Your task to perform on an android device: change your default location settings in chrome Image 0: 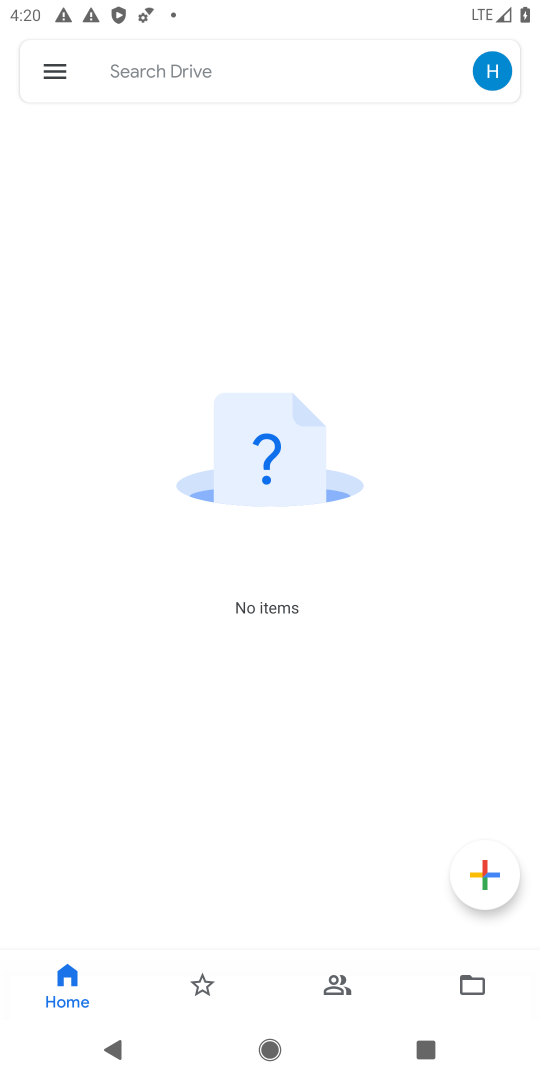
Step 0: click (270, 1036)
Your task to perform on an android device: change your default location settings in chrome Image 1: 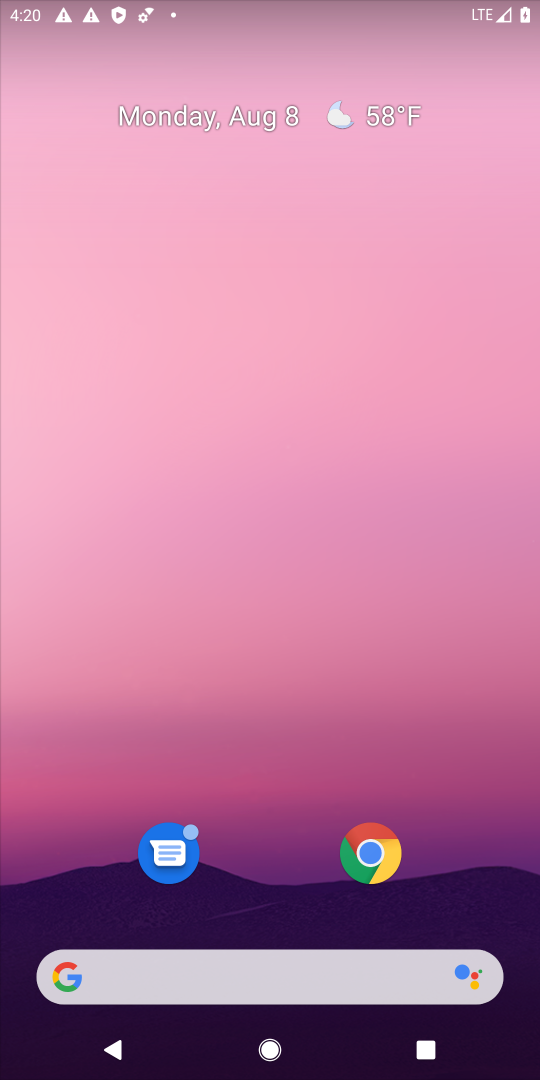
Step 1: drag from (207, 717) to (280, 2)
Your task to perform on an android device: change your default location settings in chrome Image 2: 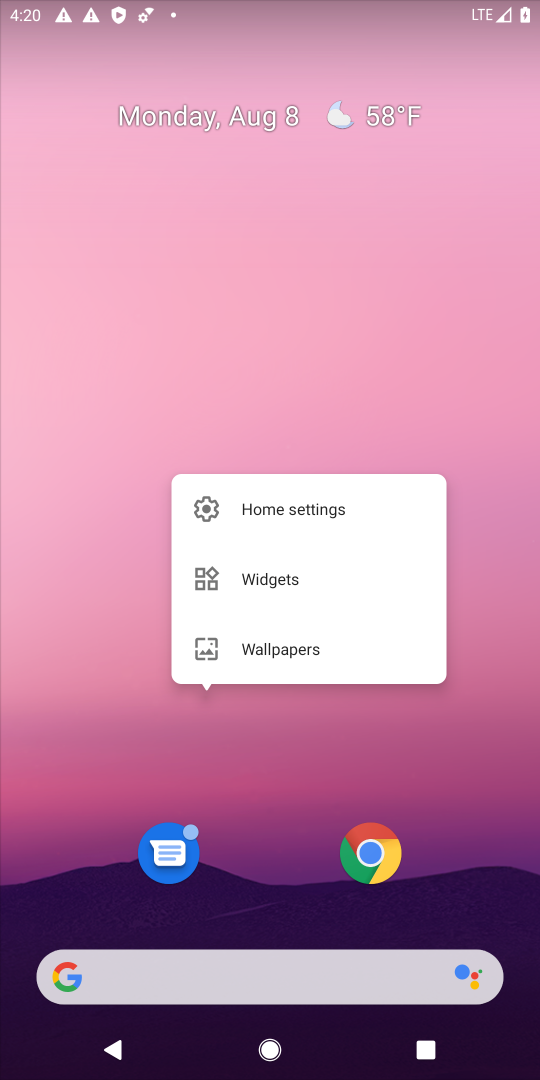
Step 2: click (262, 816)
Your task to perform on an android device: change your default location settings in chrome Image 3: 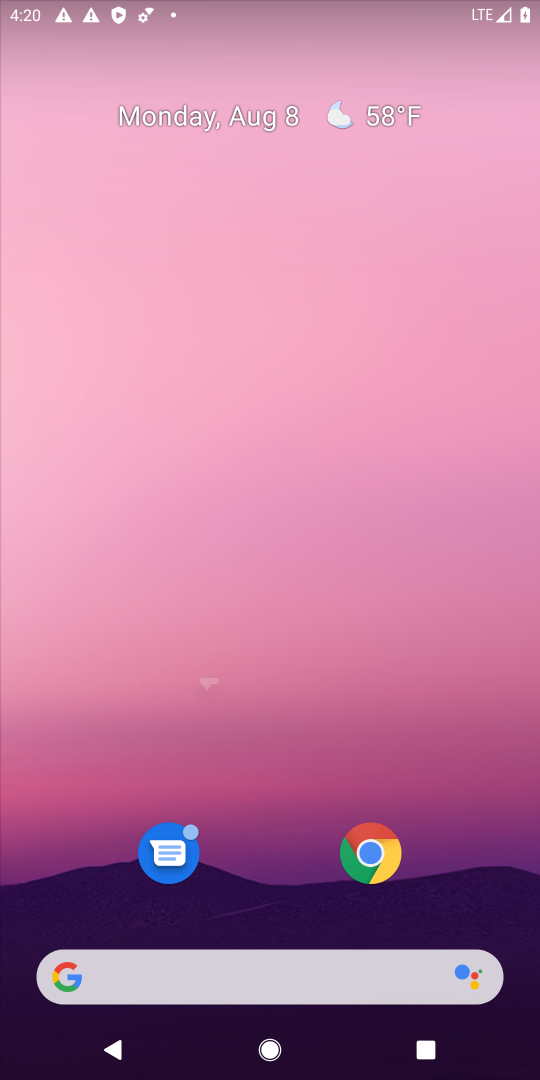
Step 3: drag from (262, 816) to (530, 56)
Your task to perform on an android device: change your default location settings in chrome Image 4: 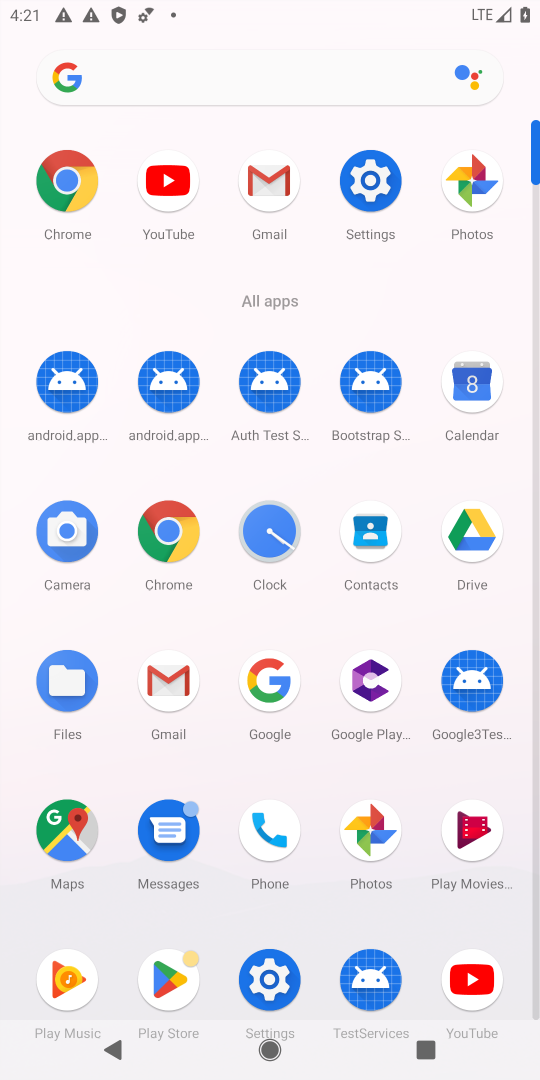
Step 4: click (177, 531)
Your task to perform on an android device: change your default location settings in chrome Image 5: 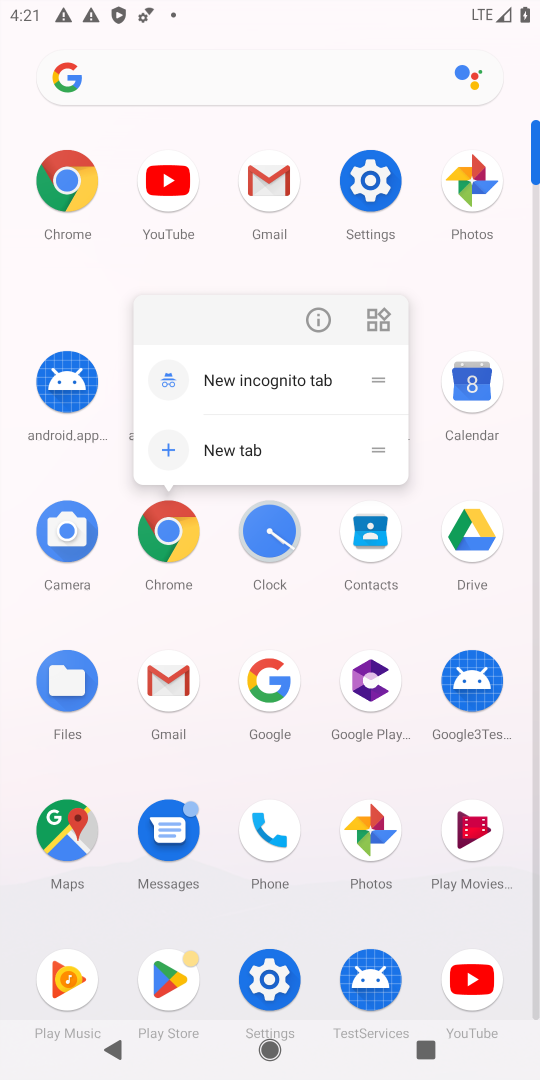
Step 5: click (323, 310)
Your task to perform on an android device: change your default location settings in chrome Image 6: 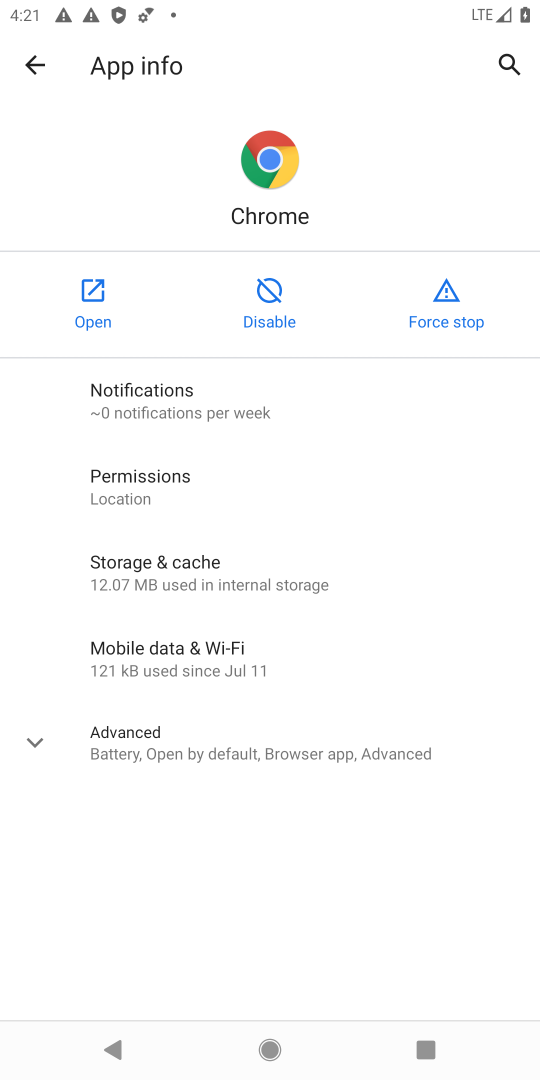
Step 6: click (180, 386)
Your task to perform on an android device: change your default location settings in chrome Image 7: 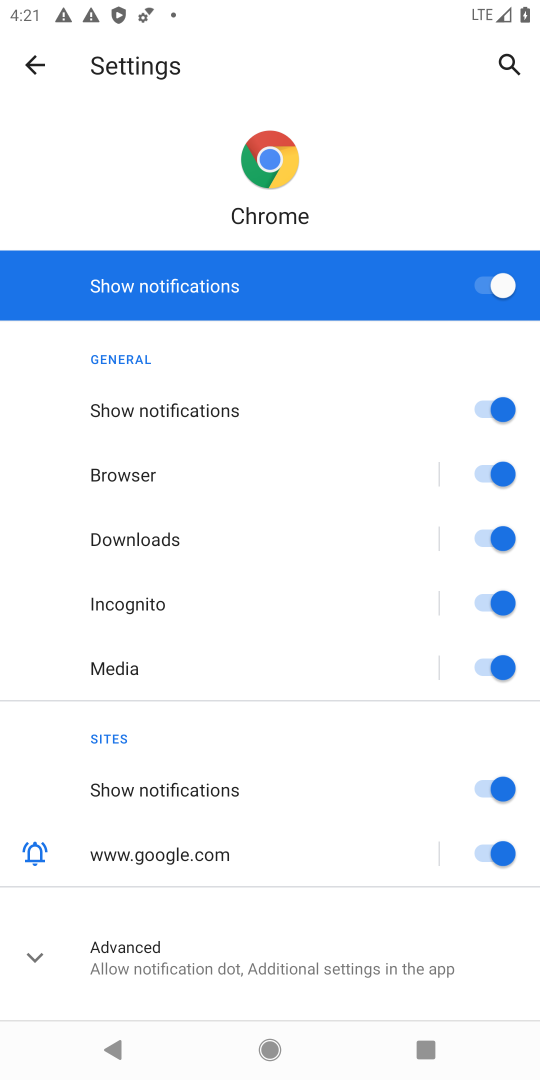
Step 7: click (520, 397)
Your task to perform on an android device: change your default location settings in chrome Image 8: 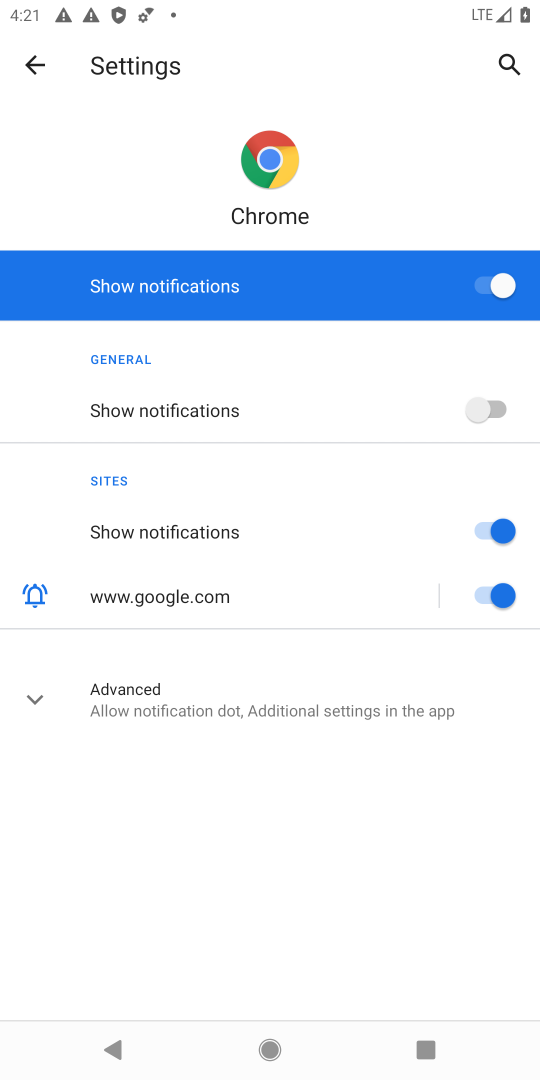
Step 8: task complete